Your task to perform on an android device: Go to sound settings Image 0: 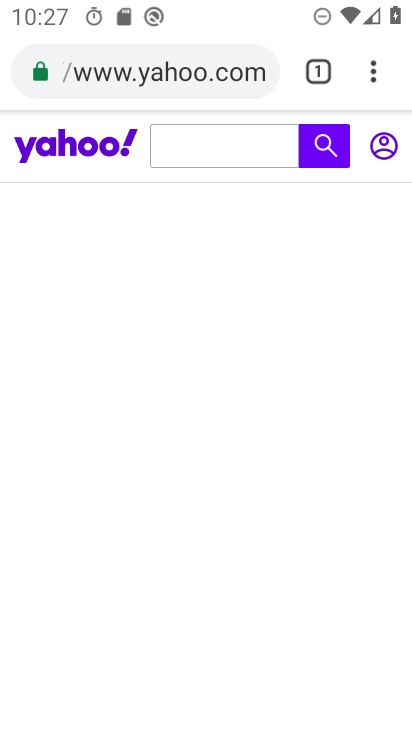
Step 0: press home button
Your task to perform on an android device: Go to sound settings Image 1: 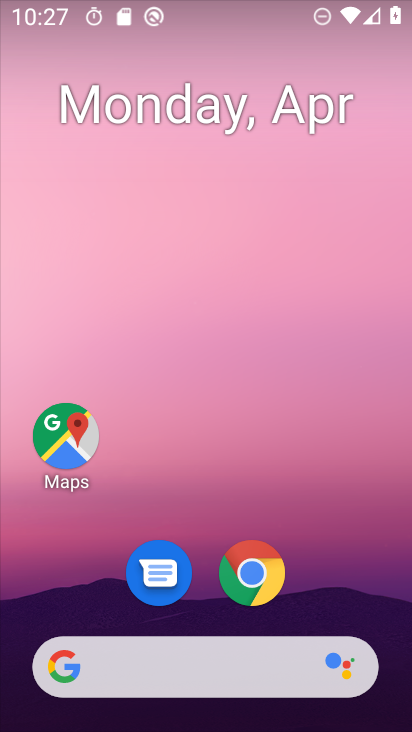
Step 1: drag from (330, 547) to (308, 128)
Your task to perform on an android device: Go to sound settings Image 2: 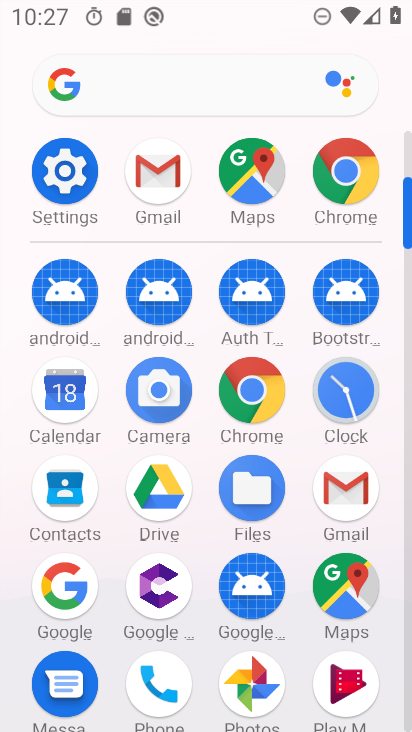
Step 2: click (60, 190)
Your task to perform on an android device: Go to sound settings Image 3: 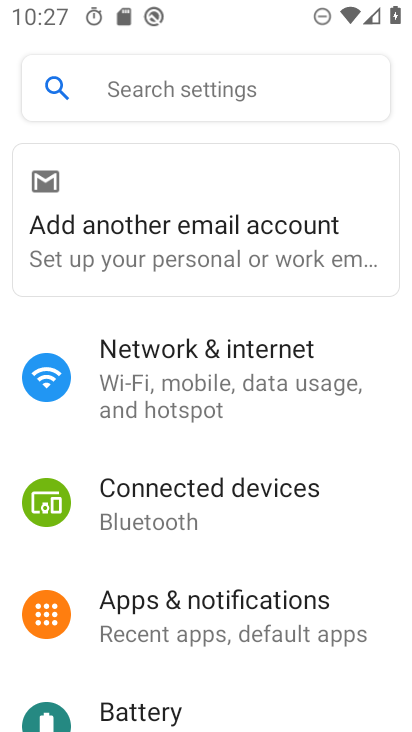
Step 3: drag from (211, 605) to (196, 260)
Your task to perform on an android device: Go to sound settings Image 4: 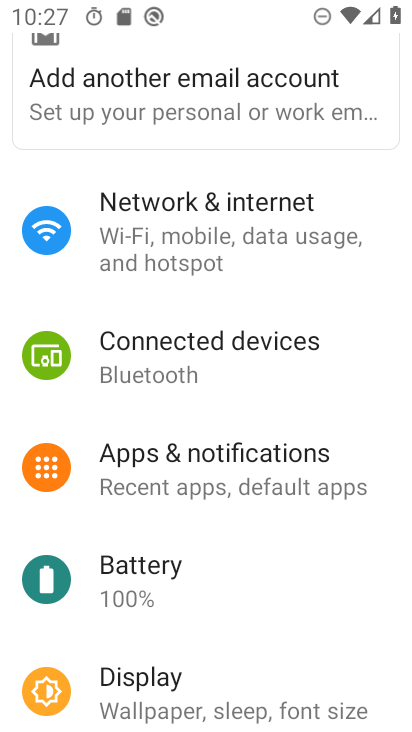
Step 4: drag from (246, 609) to (213, 253)
Your task to perform on an android device: Go to sound settings Image 5: 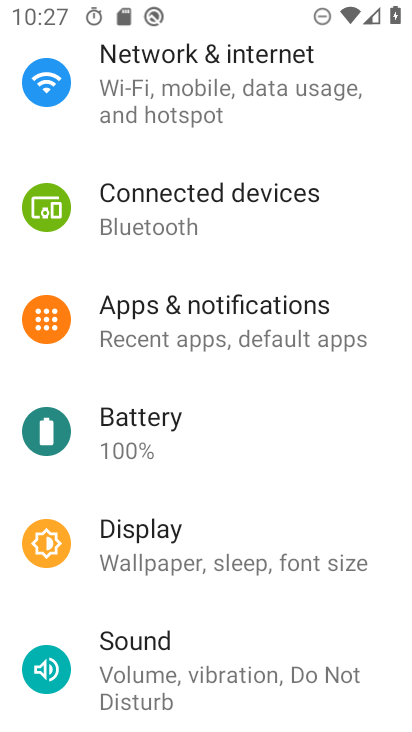
Step 5: drag from (290, 506) to (253, 283)
Your task to perform on an android device: Go to sound settings Image 6: 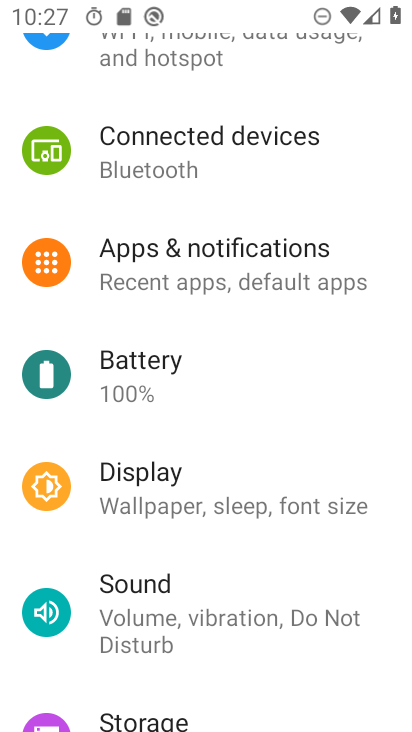
Step 6: click (188, 615)
Your task to perform on an android device: Go to sound settings Image 7: 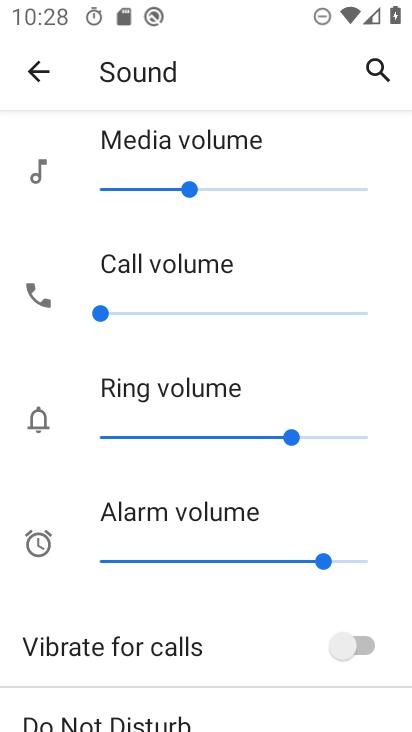
Step 7: task complete